Your task to perform on an android device: Open the web browser Image 0: 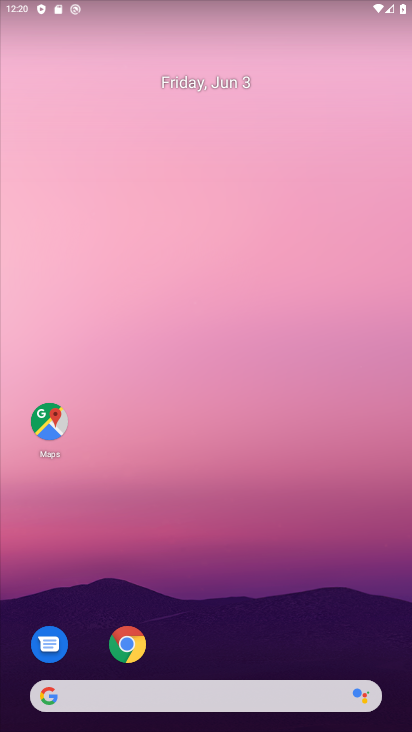
Step 0: click (127, 643)
Your task to perform on an android device: Open the web browser Image 1: 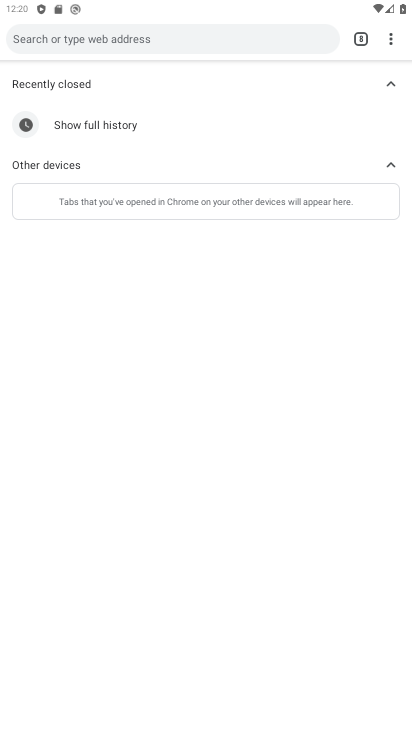
Step 1: task complete